Your task to perform on an android device: open app "McDonald's" Image 0: 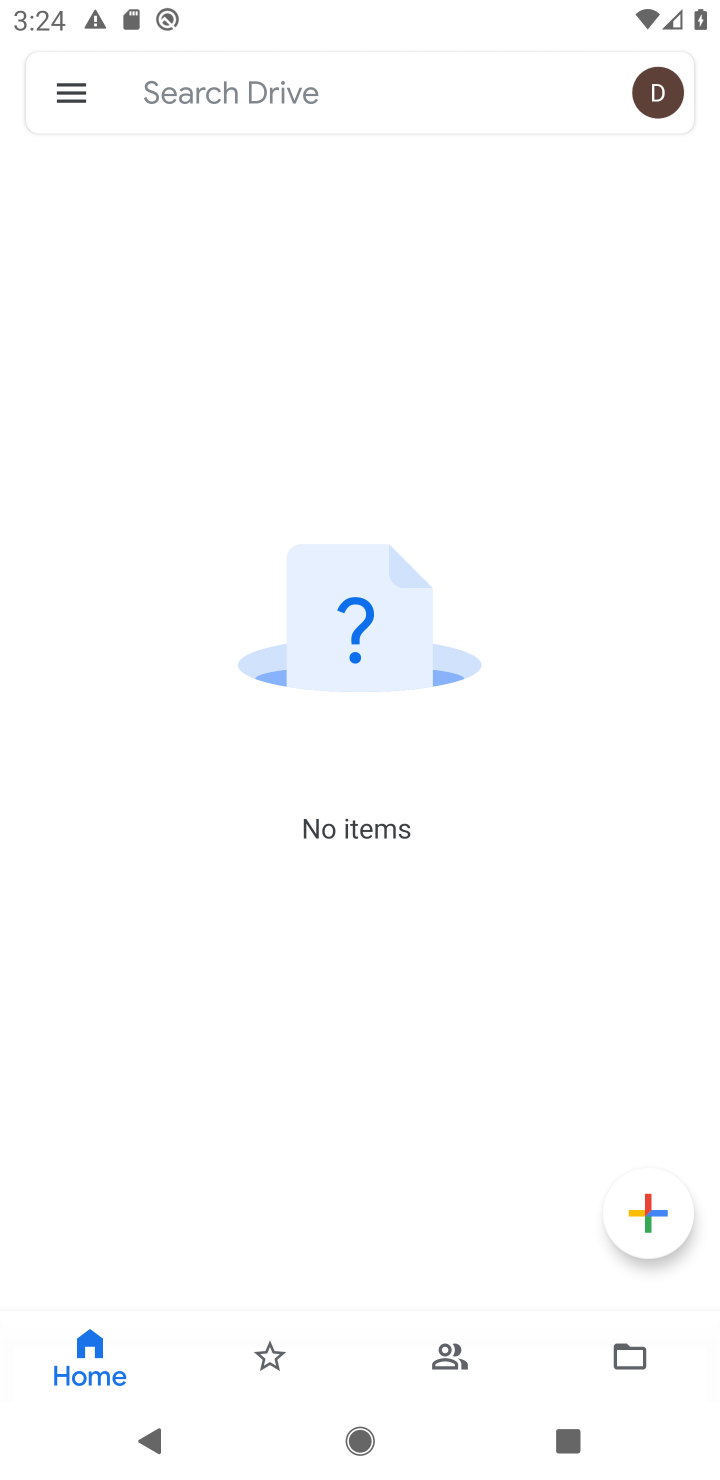
Step 0: press back button
Your task to perform on an android device: open app "McDonald's" Image 1: 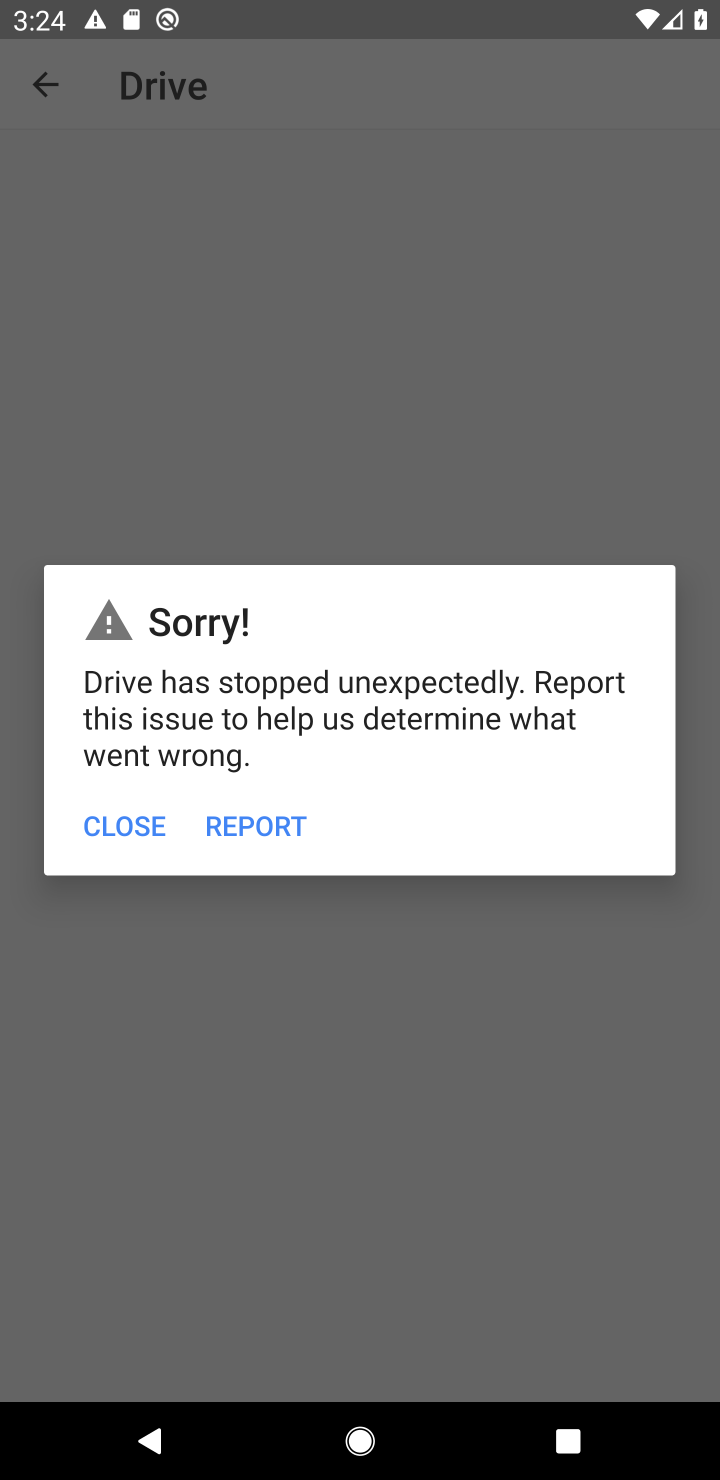
Step 1: click (151, 833)
Your task to perform on an android device: open app "McDonald's" Image 2: 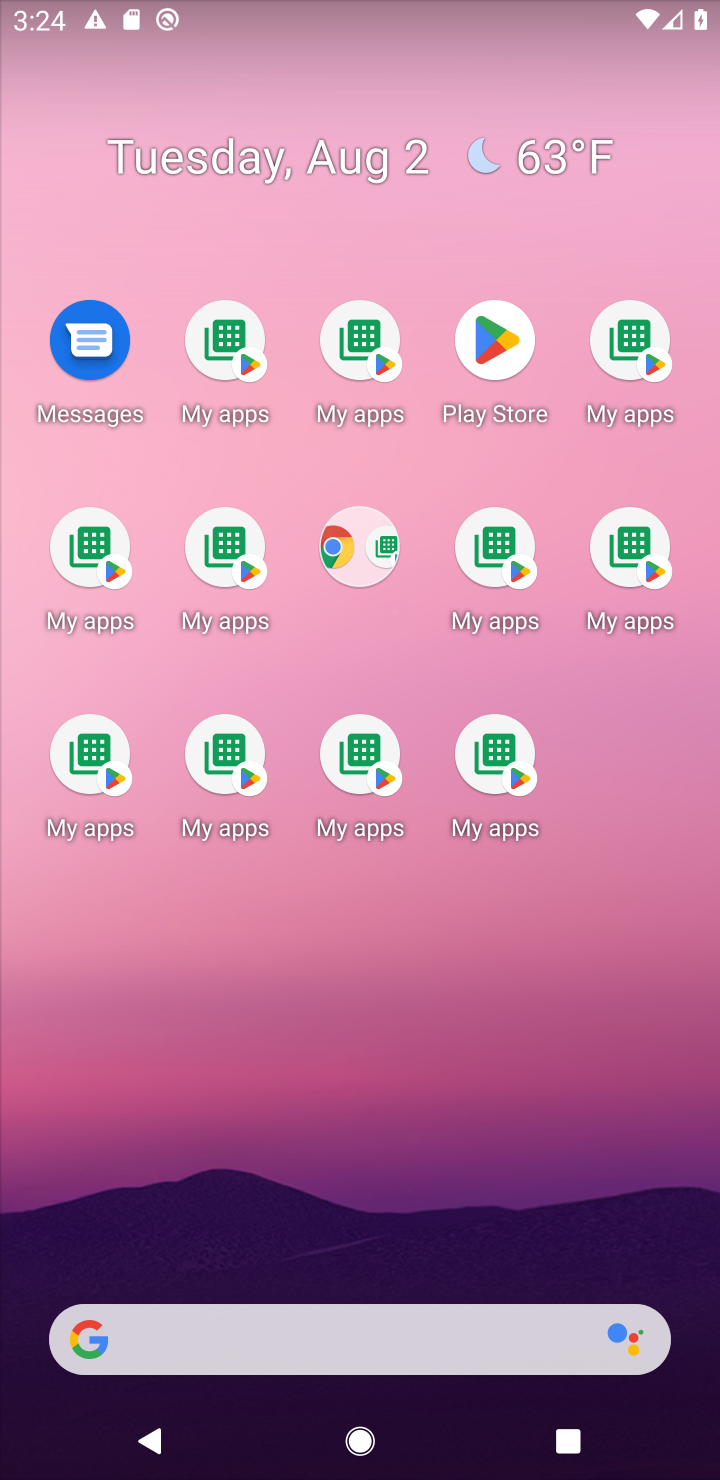
Step 2: click (497, 346)
Your task to perform on an android device: open app "McDonald's" Image 3: 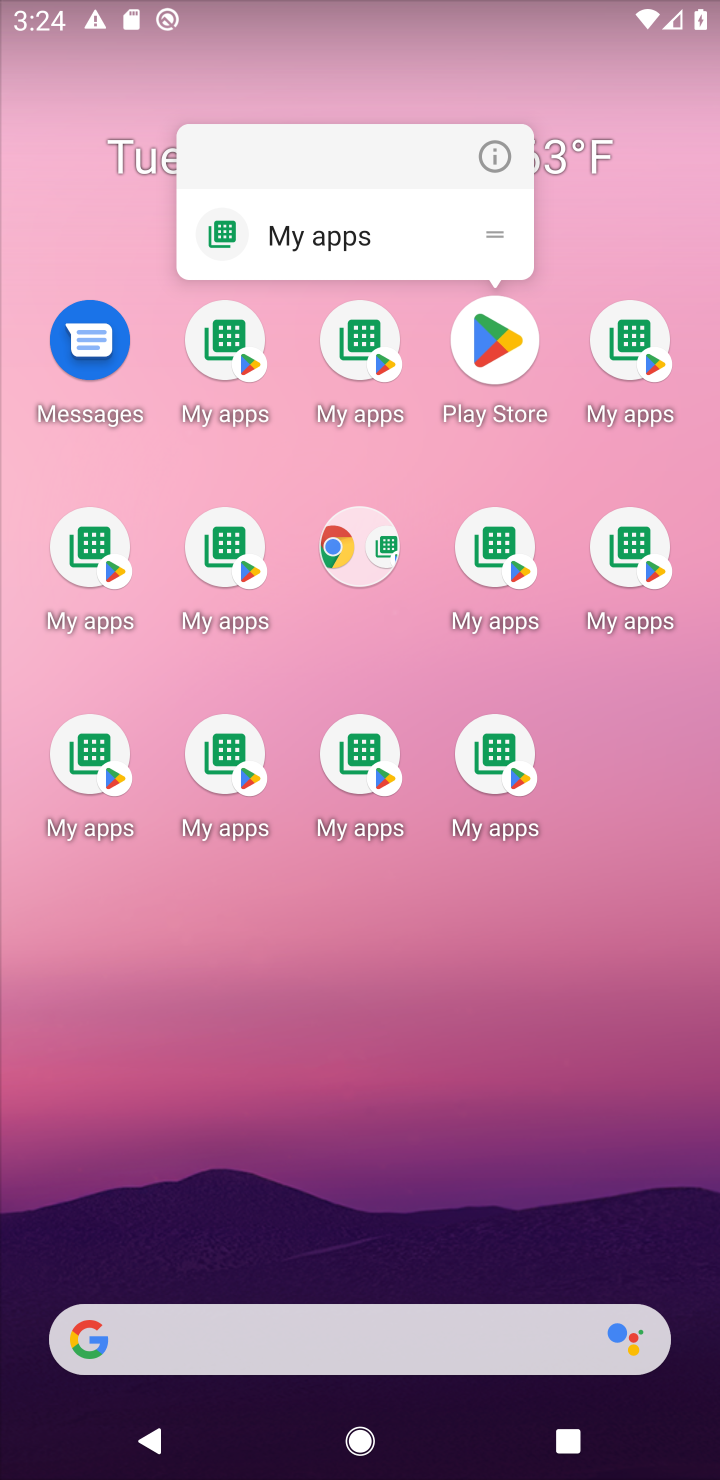
Step 3: click (492, 339)
Your task to perform on an android device: open app "McDonald's" Image 4: 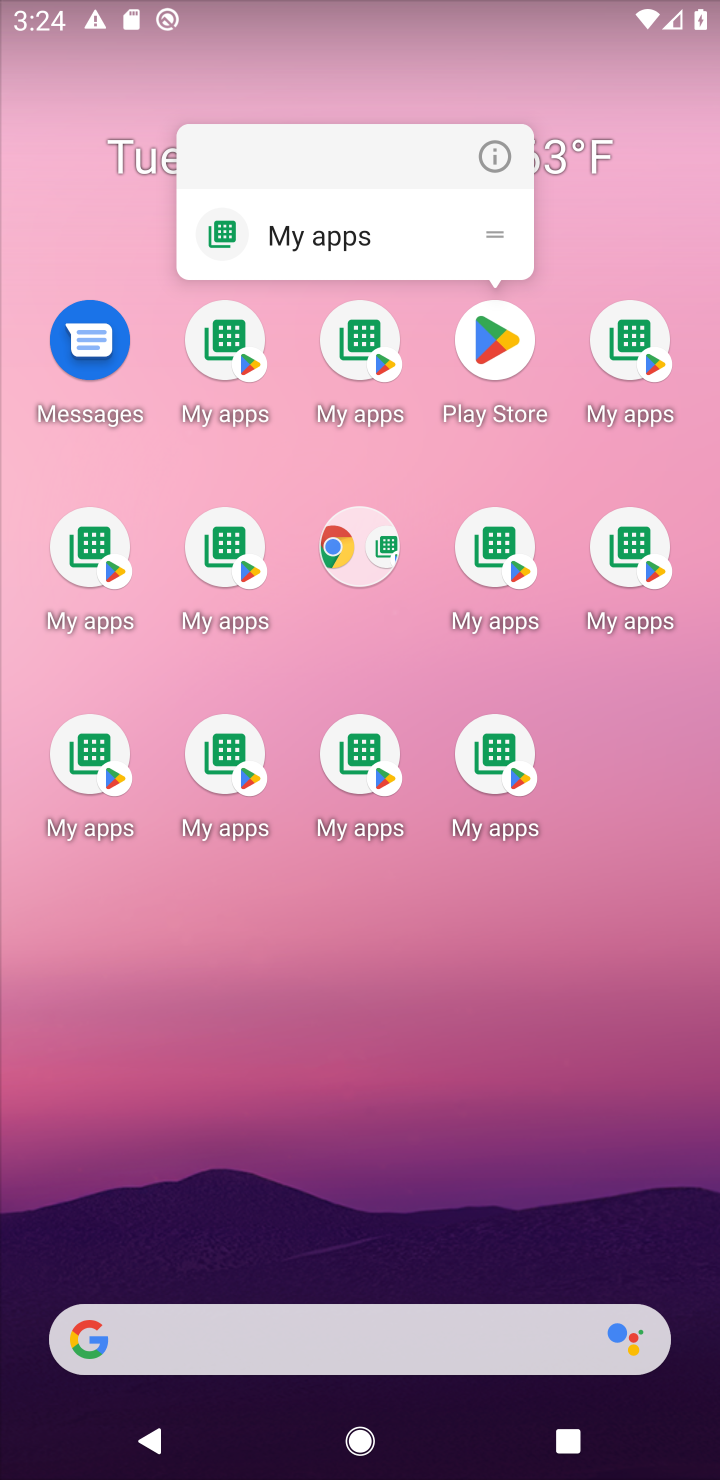
Step 4: click (497, 333)
Your task to perform on an android device: open app "McDonald's" Image 5: 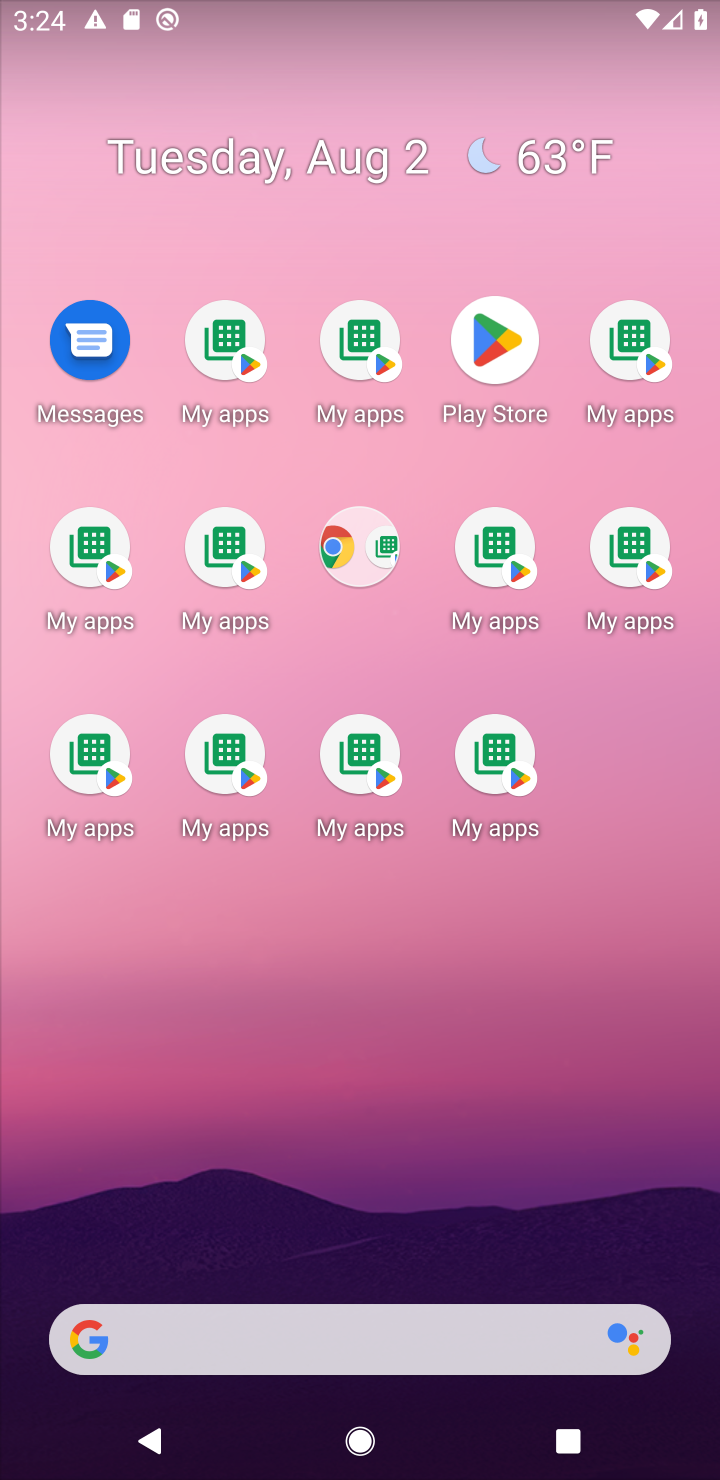
Step 5: click (339, 225)
Your task to perform on an android device: open app "McDonald's" Image 6: 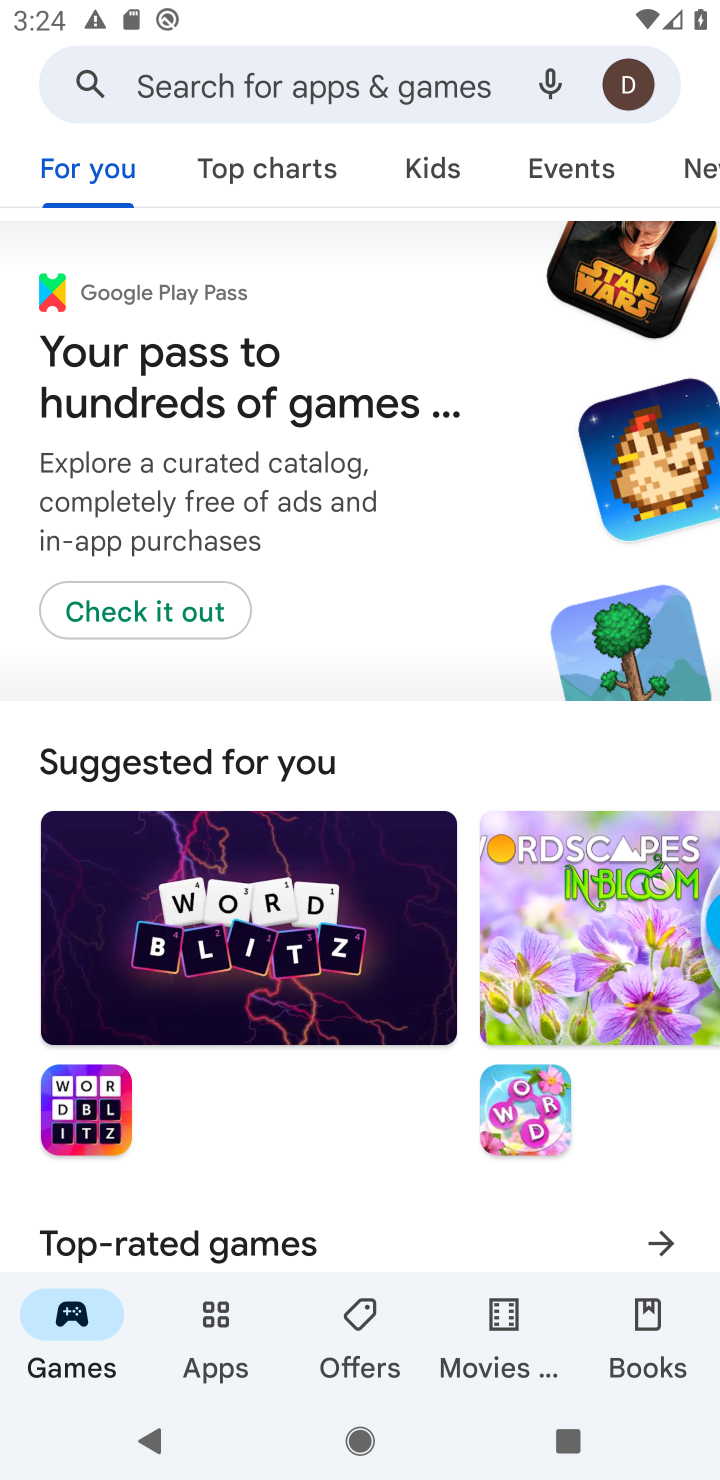
Step 6: click (323, 92)
Your task to perform on an android device: open app "McDonald's" Image 7: 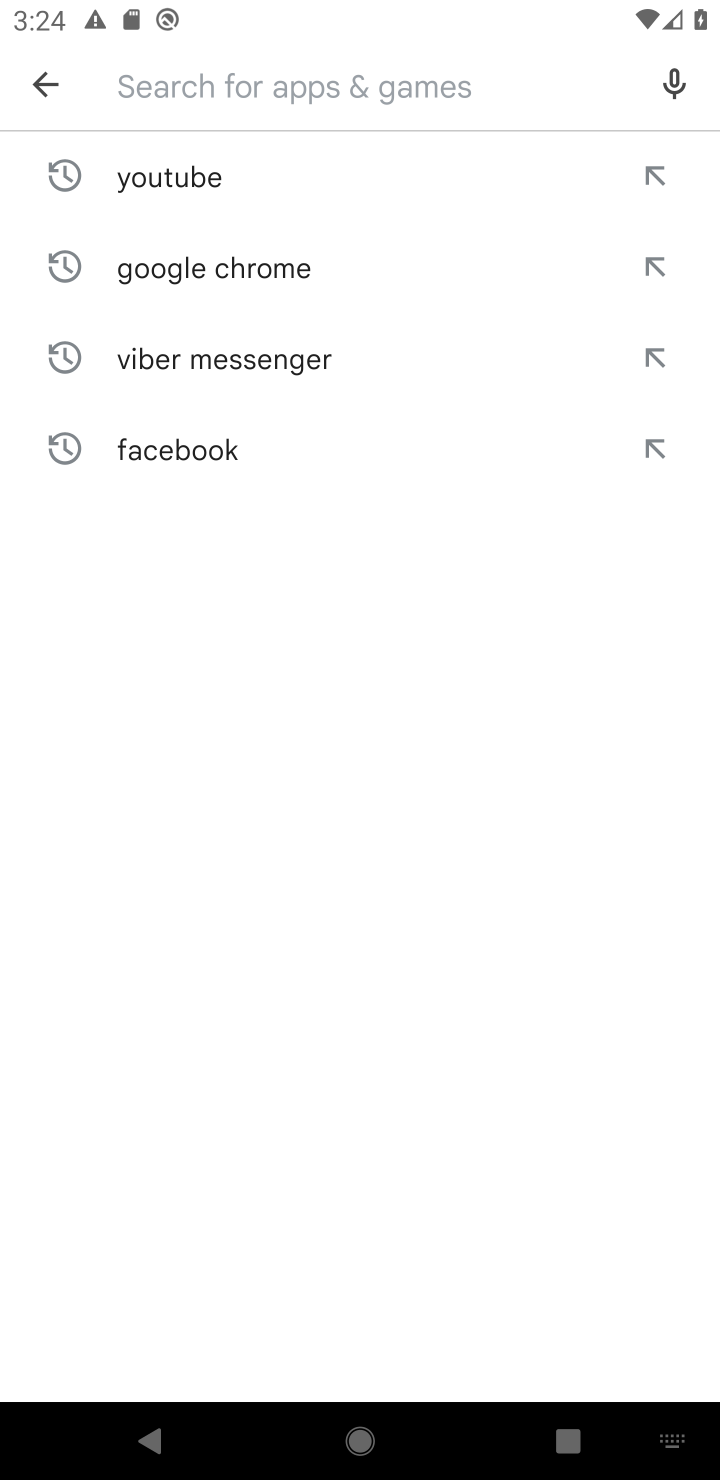
Step 7: type "mcdonalds"
Your task to perform on an android device: open app "McDonald's" Image 8: 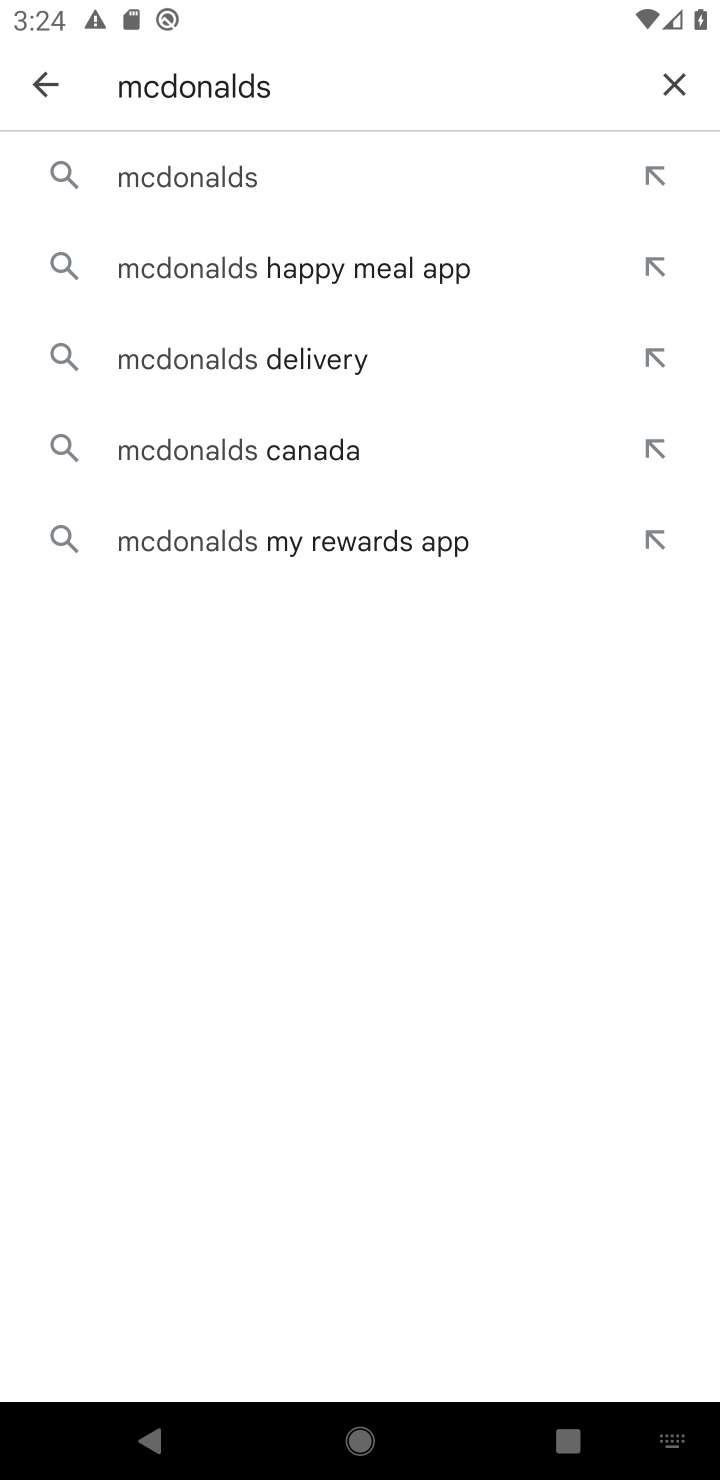
Step 8: click (221, 178)
Your task to perform on an android device: open app "McDonald's" Image 9: 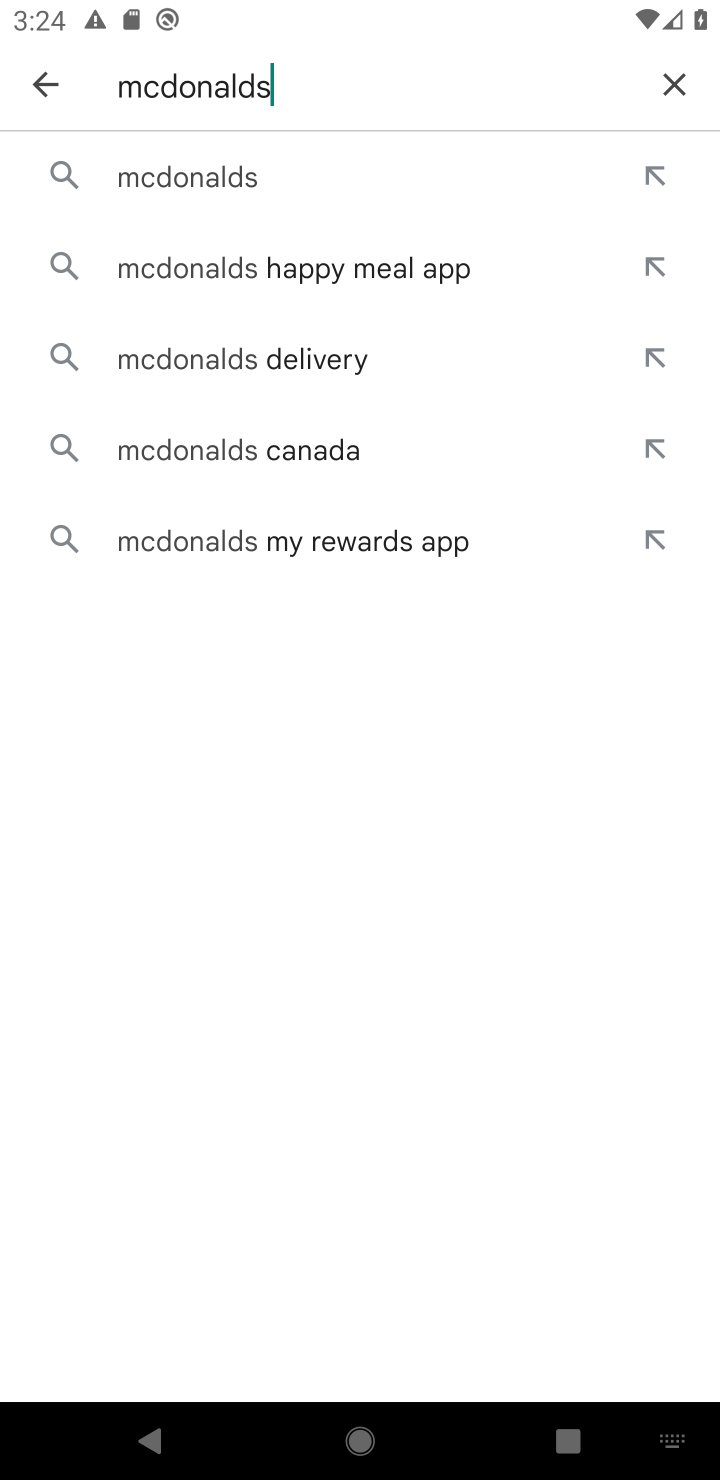
Step 9: click (221, 178)
Your task to perform on an android device: open app "McDonald's" Image 10: 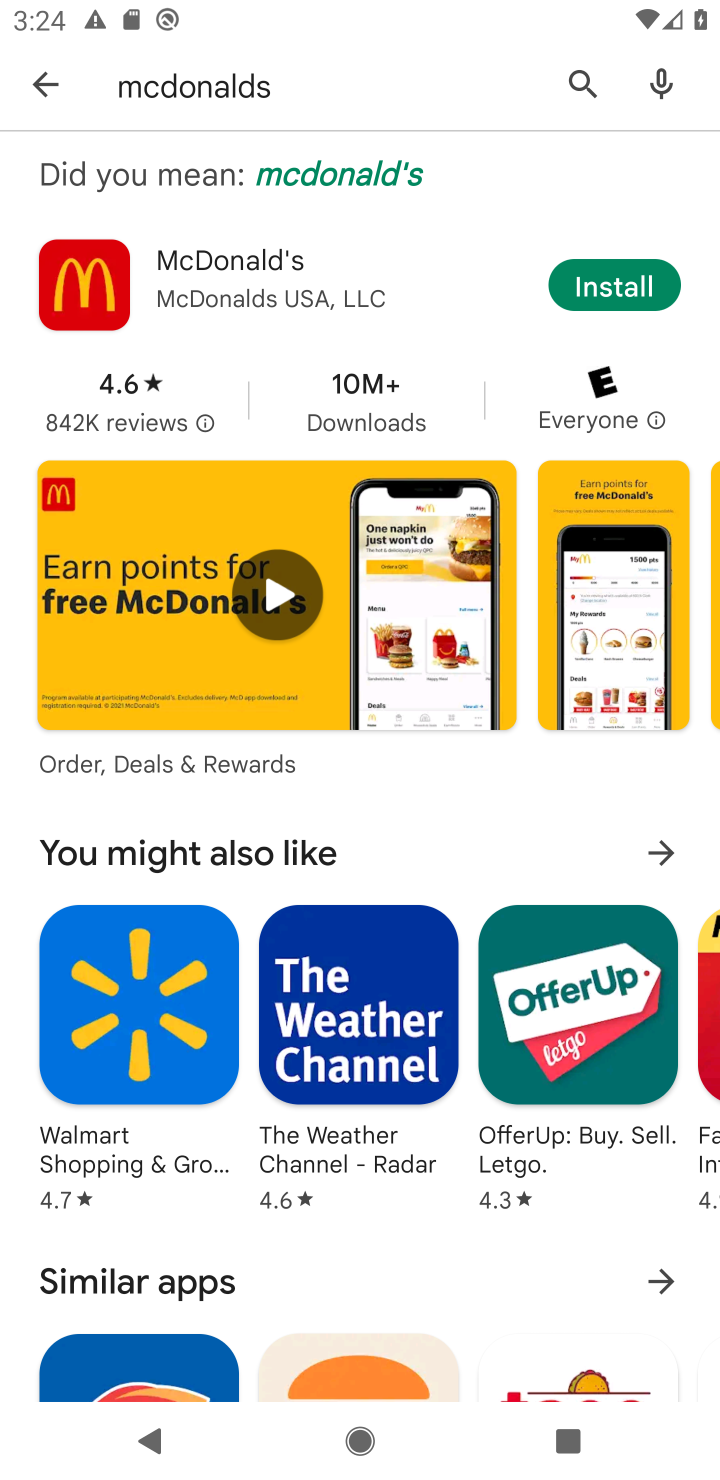
Step 10: click (605, 289)
Your task to perform on an android device: open app "McDonald's" Image 11: 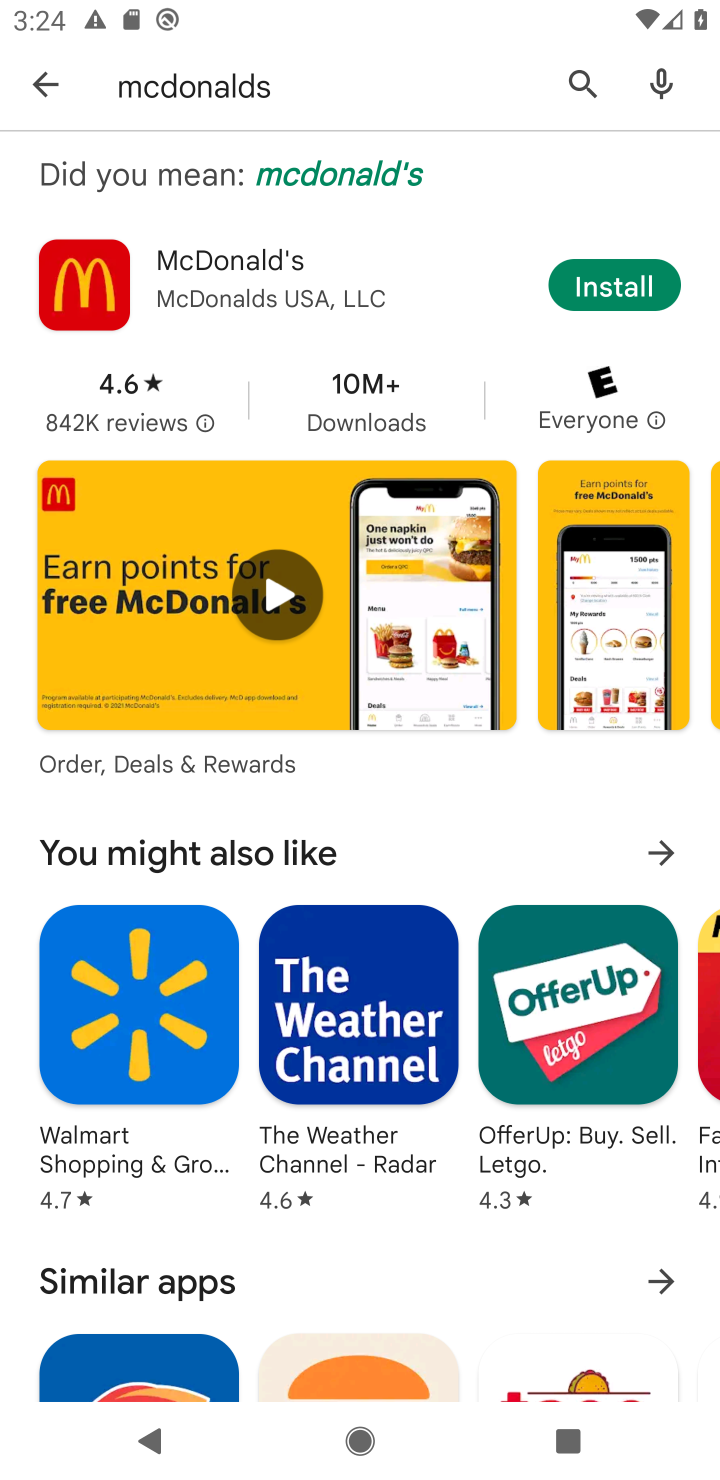
Step 11: click (605, 289)
Your task to perform on an android device: open app "McDonald's" Image 12: 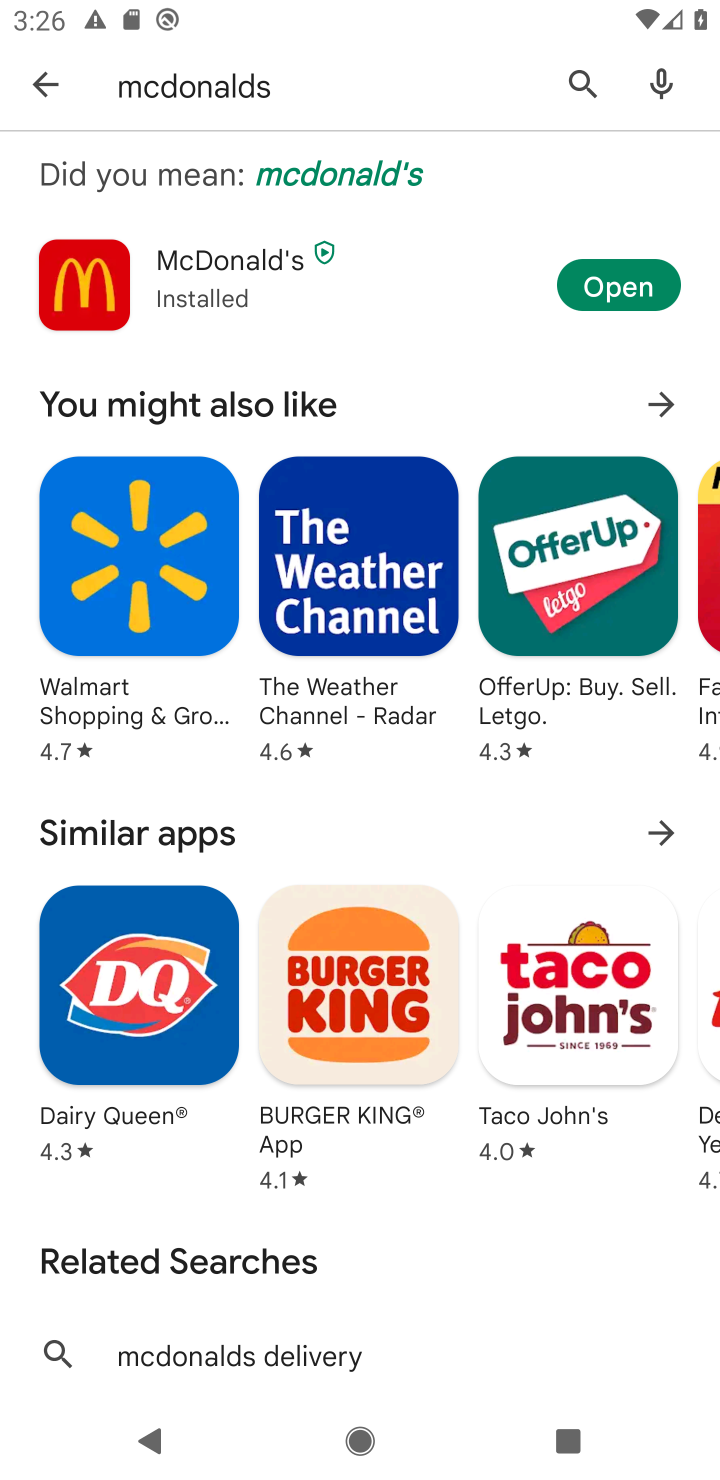
Step 12: click (653, 294)
Your task to perform on an android device: open app "McDonald's" Image 13: 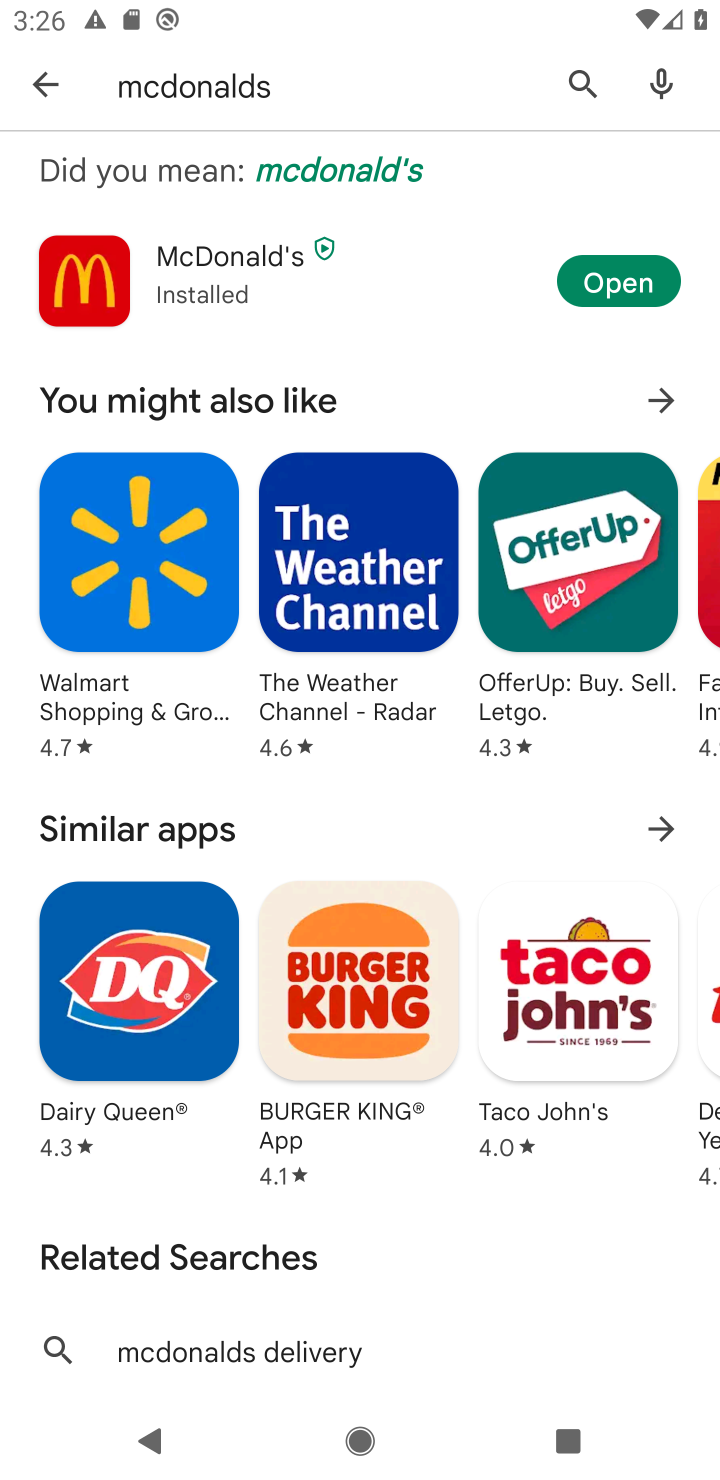
Step 13: click (620, 277)
Your task to perform on an android device: open app "McDonald's" Image 14: 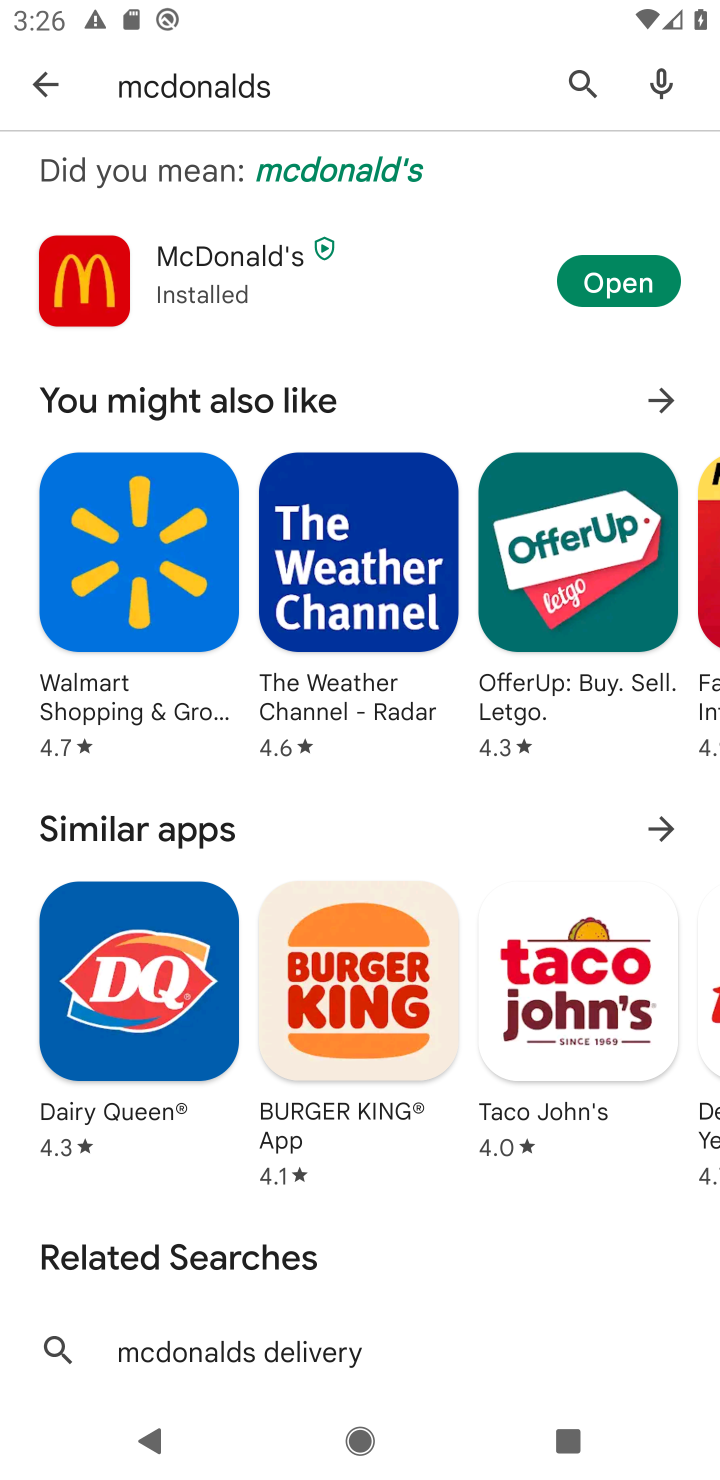
Step 14: click (616, 280)
Your task to perform on an android device: open app "McDonald's" Image 15: 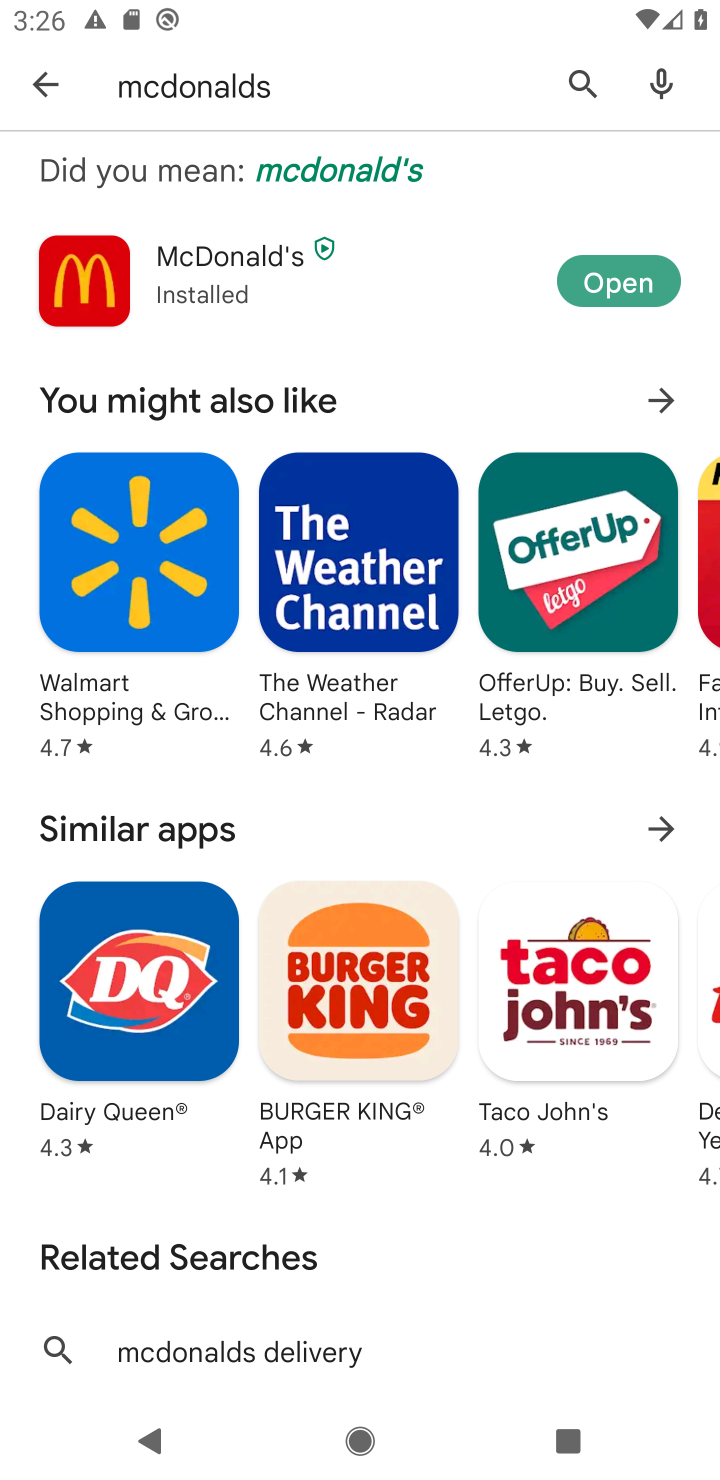
Step 15: click (643, 276)
Your task to perform on an android device: open app "McDonald's" Image 16: 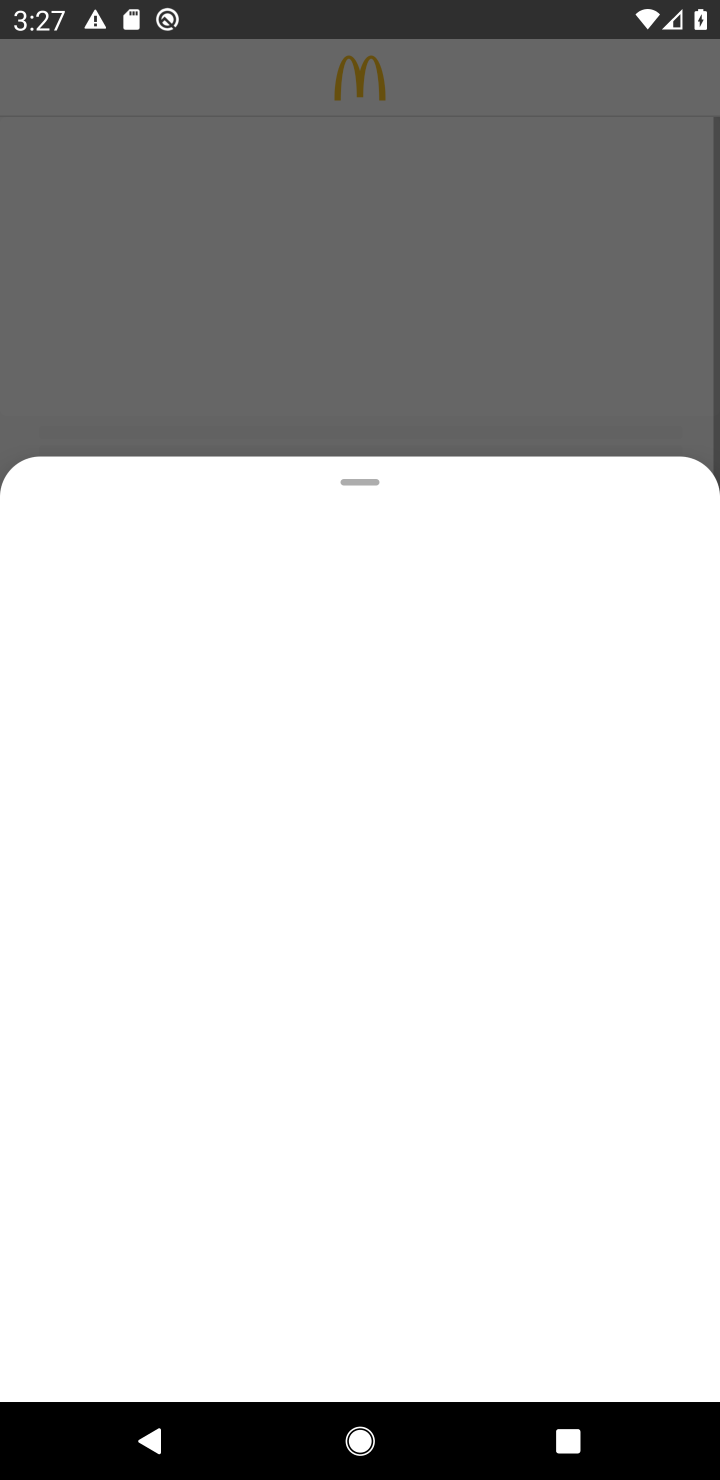
Step 16: task complete